Your task to perform on an android device: check android version Image 0: 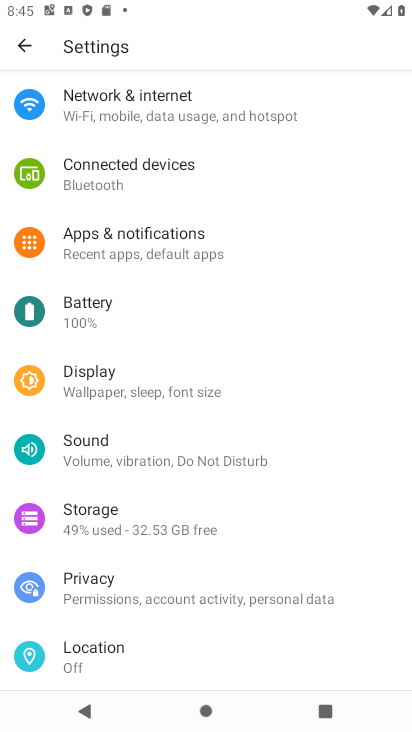
Step 0: press home button
Your task to perform on an android device: check android version Image 1: 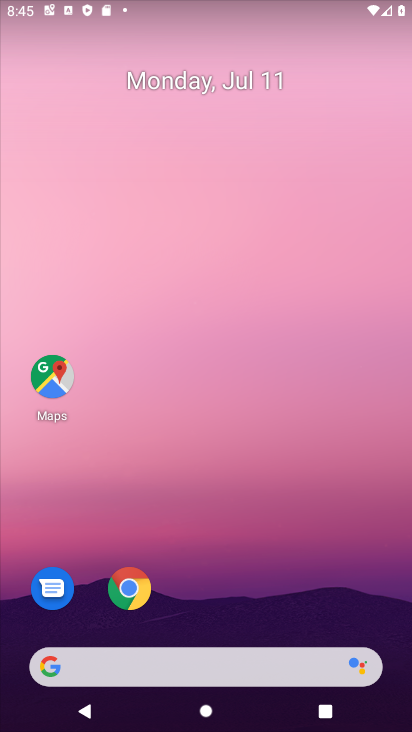
Step 1: drag from (393, 644) to (8, 134)
Your task to perform on an android device: check android version Image 2: 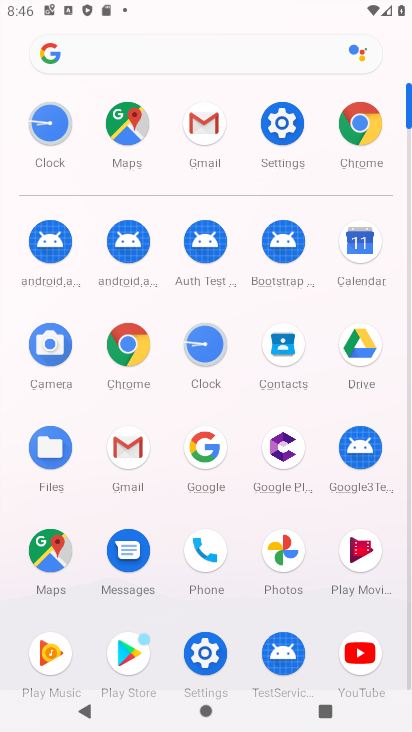
Step 2: click (275, 127)
Your task to perform on an android device: check android version Image 3: 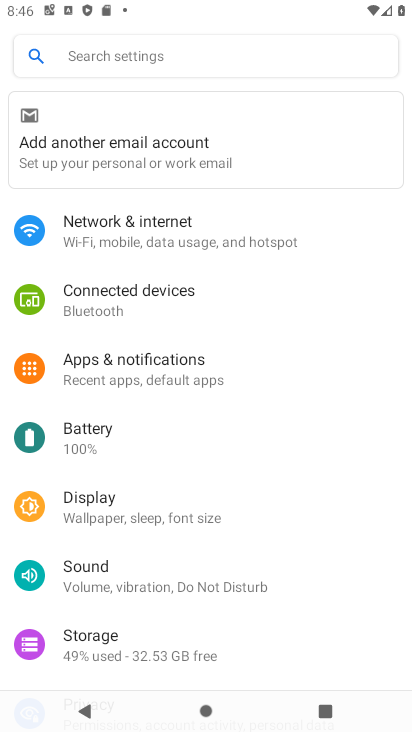
Step 3: drag from (136, 607) to (136, 218)
Your task to perform on an android device: check android version Image 4: 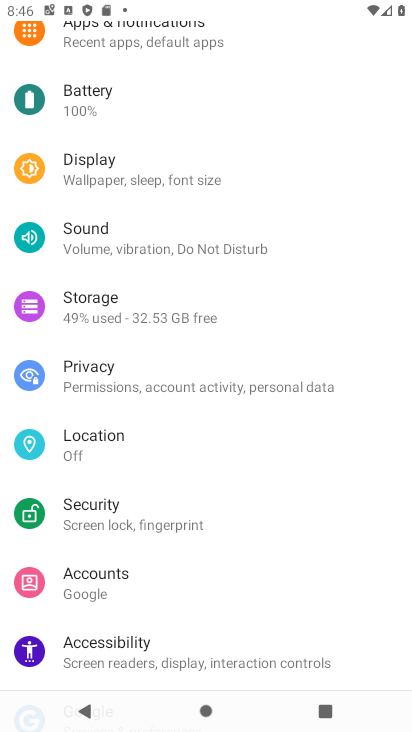
Step 4: drag from (182, 596) to (177, 12)
Your task to perform on an android device: check android version Image 5: 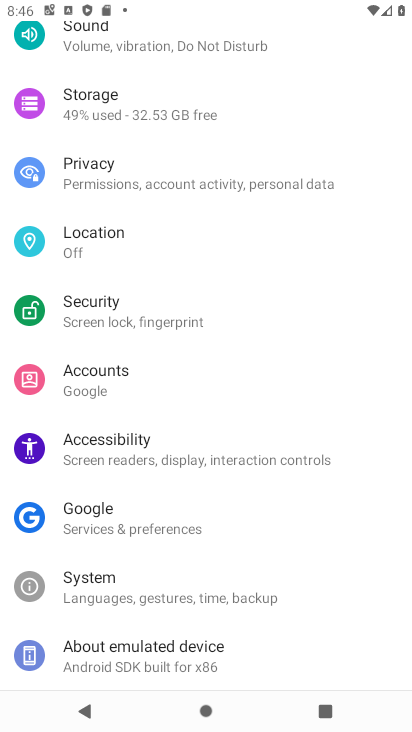
Step 5: click (203, 652)
Your task to perform on an android device: check android version Image 6: 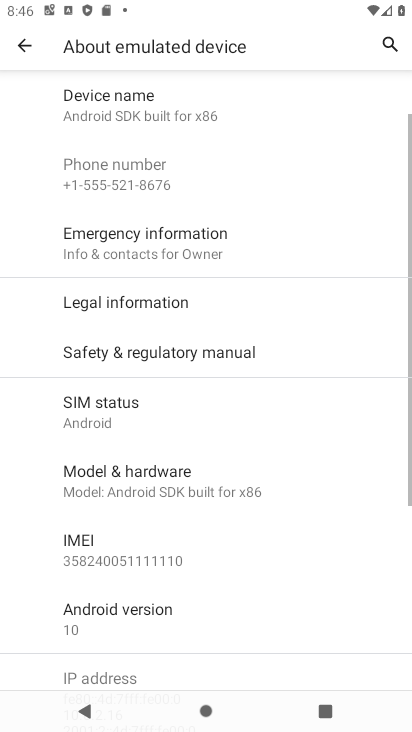
Step 6: click (191, 603)
Your task to perform on an android device: check android version Image 7: 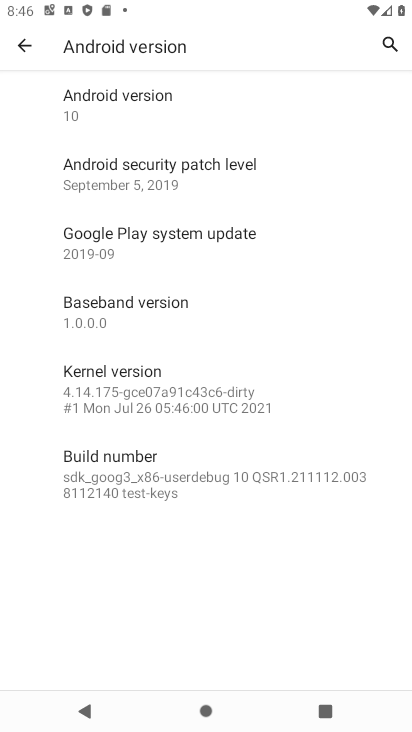
Step 7: task complete